Your task to perform on an android device: toggle wifi Image 0: 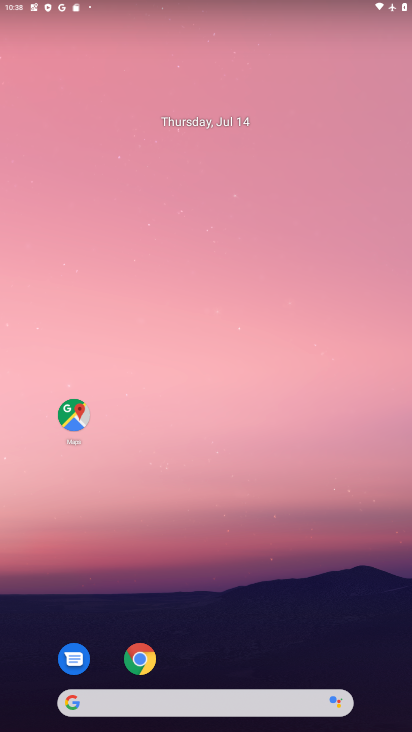
Step 0: drag from (239, 644) to (204, 94)
Your task to perform on an android device: toggle wifi Image 1: 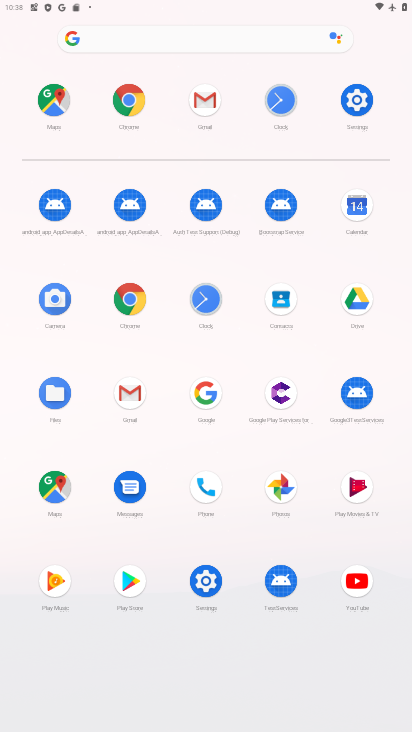
Step 1: click (354, 107)
Your task to perform on an android device: toggle wifi Image 2: 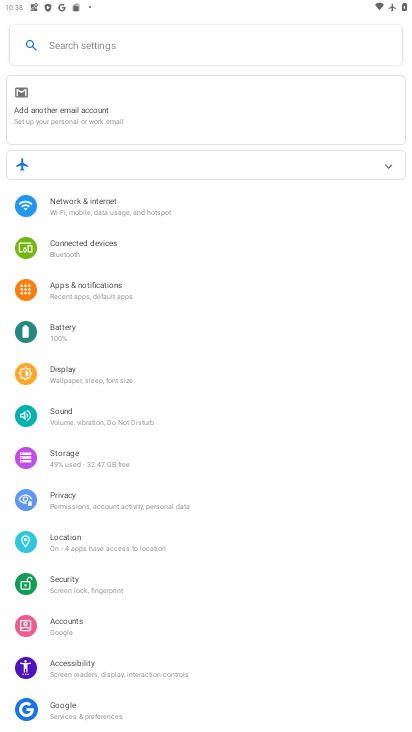
Step 2: click (92, 215)
Your task to perform on an android device: toggle wifi Image 3: 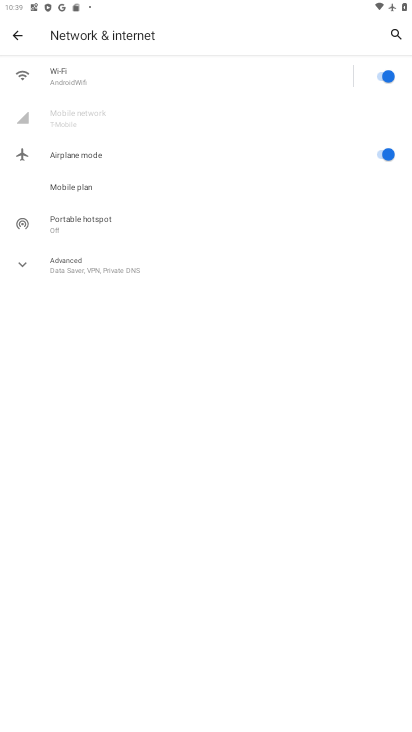
Step 3: click (392, 73)
Your task to perform on an android device: toggle wifi Image 4: 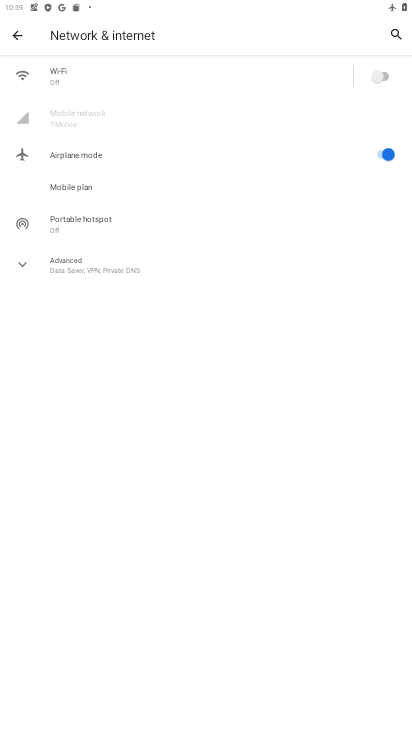
Step 4: task complete